Your task to perform on an android device: Open notification settings Image 0: 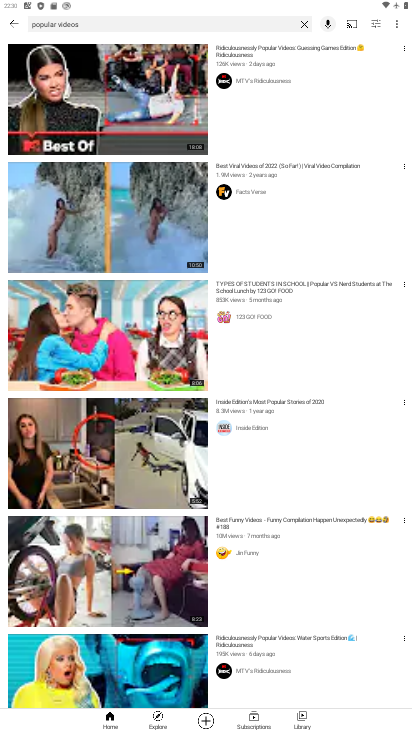
Step 0: press home button
Your task to perform on an android device: Open notification settings Image 1: 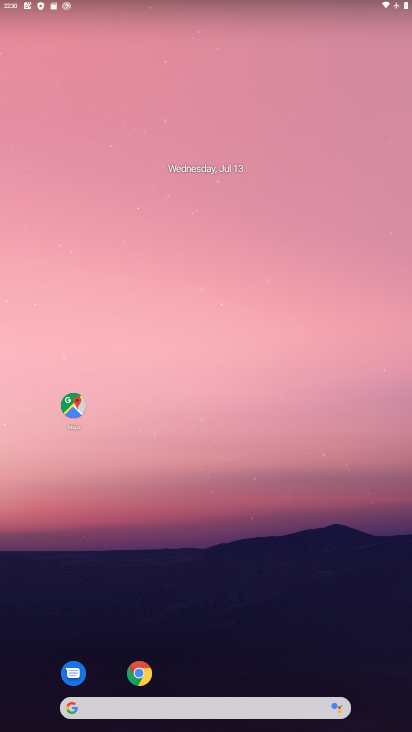
Step 1: drag from (201, 653) to (193, 224)
Your task to perform on an android device: Open notification settings Image 2: 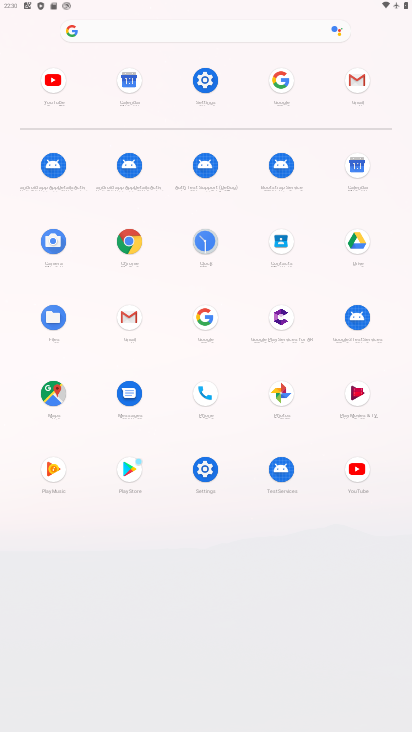
Step 2: click (210, 95)
Your task to perform on an android device: Open notification settings Image 3: 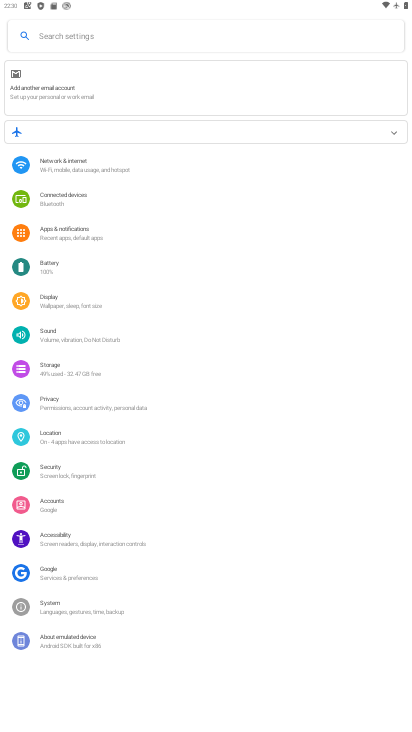
Step 3: click (54, 228)
Your task to perform on an android device: Open notification settings Image 4: 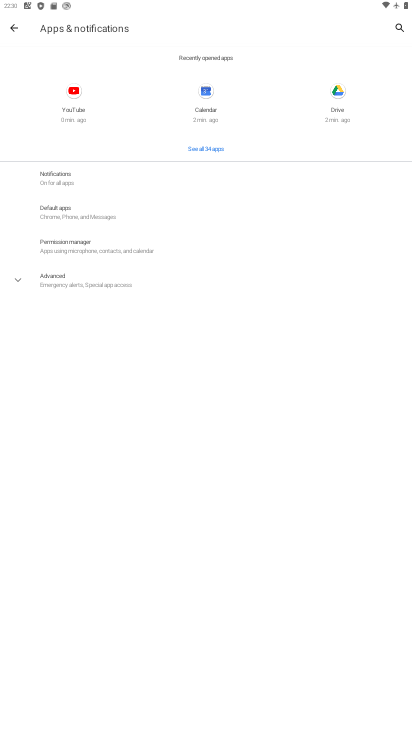
Step 4: click (54, 184)
Your task to perform on an android device: Open notification settings Image 5: 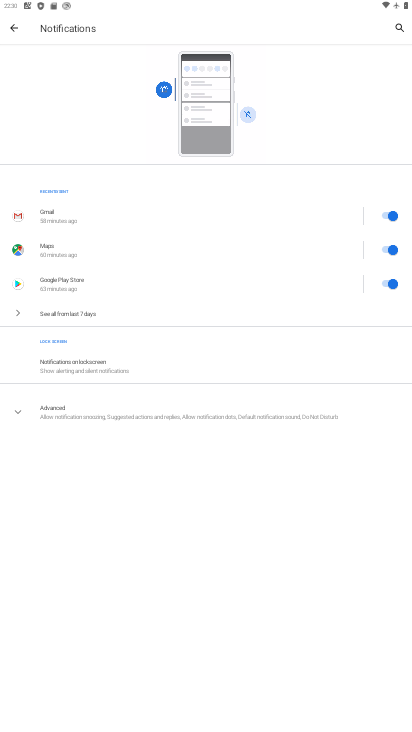
Step 5: task complete